Your task to perform on an android device: Set the phone to "Do not disturb". Image 0: 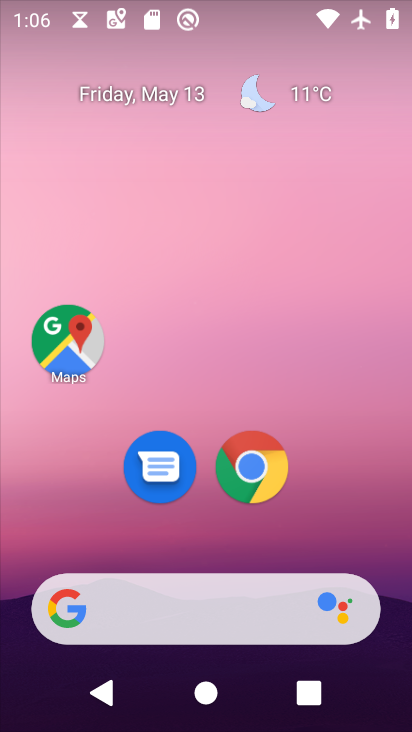
Step 0: drag from (319, 457) to (184, 89)
Your task to perform on an android device: Set the phone to "Do not disturb". Image 1: 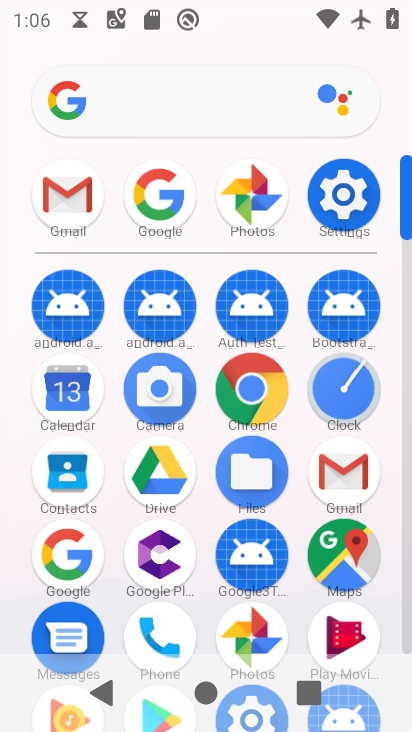
Step 1: click (324, 190)
Your task to perform on an android device: Set the phone to "Do not disturb". Image 2: 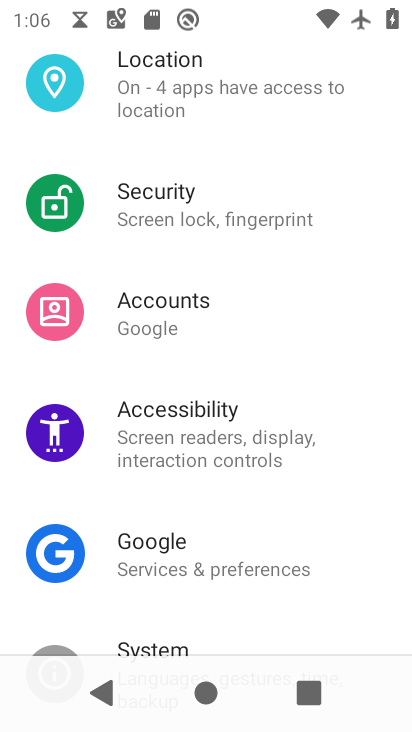
Step 2: drag from (276, 590) to (191, 119)
Your task to perform on an android device: Set the phone to "Do not disturb". Image 3: 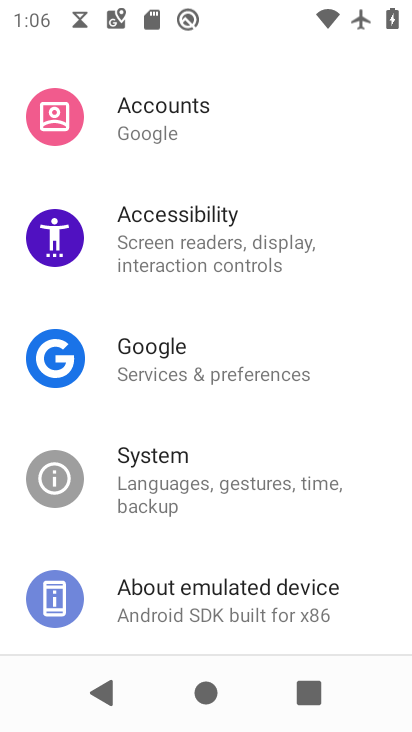
Step 3: drag from (255, 441) to (222, 133)
Your task to perform on an android device: Set the phone to "Do not disturb". Image 4: 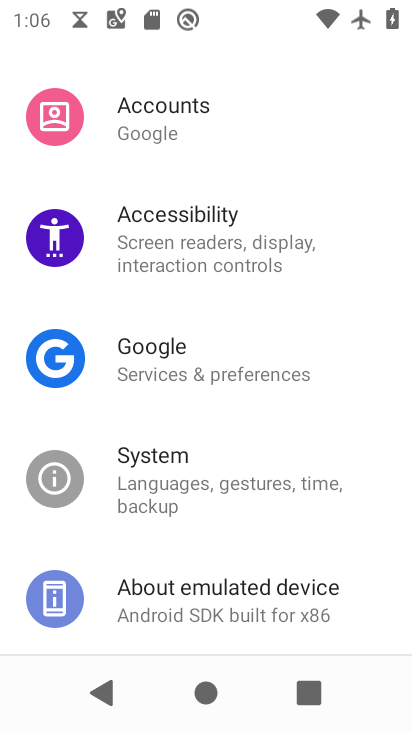
Step 4: drag from (229, 334) to (211, 635)
Your task to perform on an android device: Set the phone to "Do not disturb". Image 5: 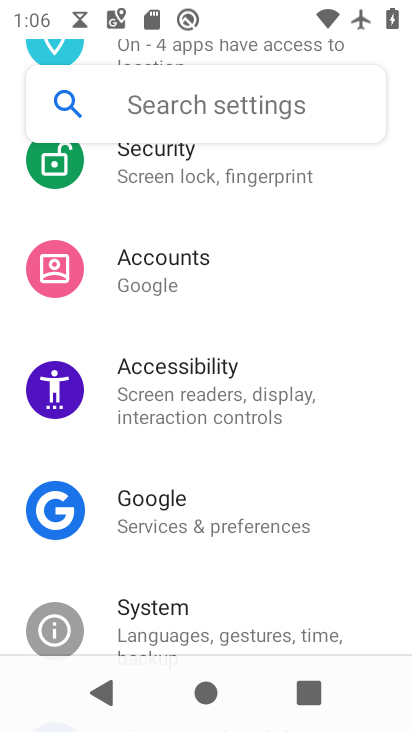
Step 5: drag from (223, 217) to (237, 571)
Your task to perform on an android device: Set the phone to "Do not disturb". Image 6: 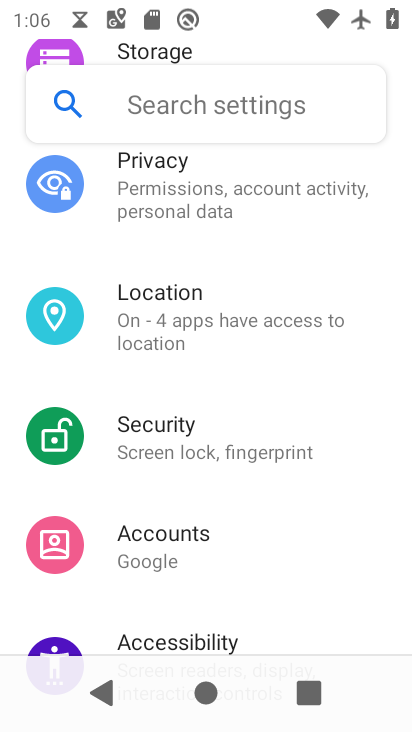
Step 6: drag from (243, 283) to (233, 675)
Your task to perform on an android device: Set the phone to "Do not disturb". Image 7: 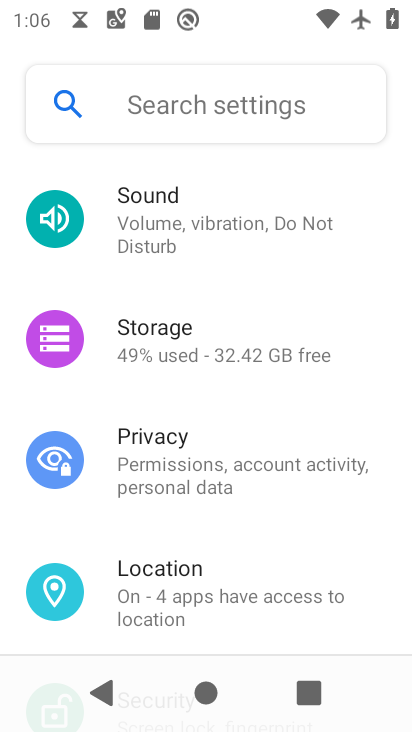
Step 7: click (217, 216)
Your task to perform on an android device: Set the phone to "Do not disturb". Image 8: 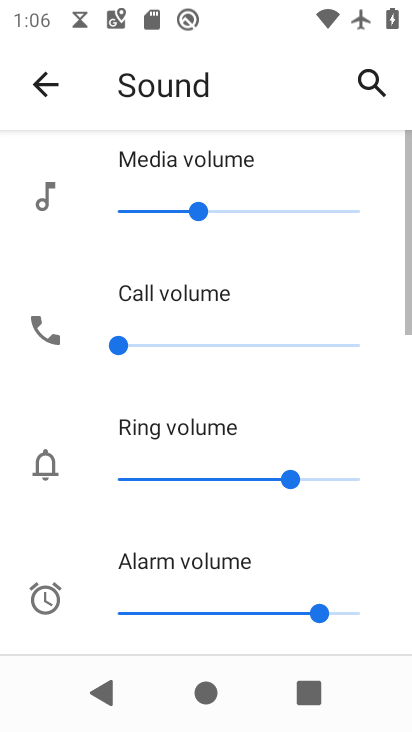
Step 8: drag from (230, 579) to (225, 158)
Your task to perform on an android device: Set the phone to "Do not disturb". Image 9: 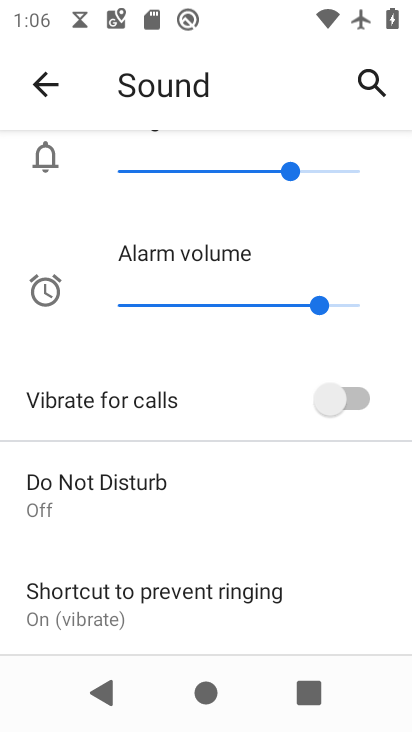
Step 9: click (177, 491)
Your task to perform on an android device: Set the phone to "Do not disturb". Image 10: 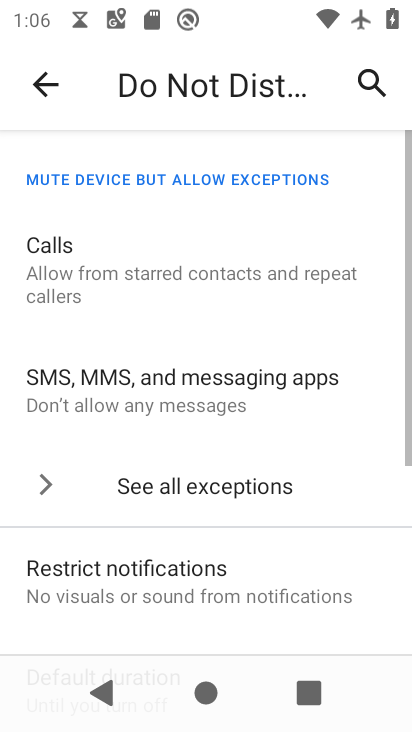
Step 10: drag from (254, 544) to (249, 131)
Your task to perform on an android device: Set the phone to "Do not disturb". Image 11: 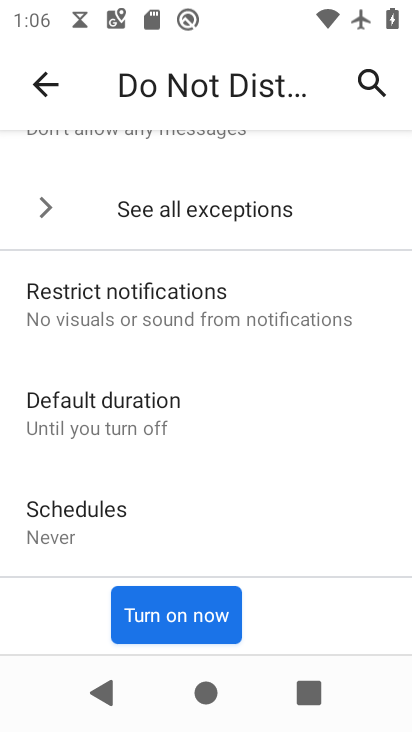
Step 11: click (199, 623)
Your task to perform on an android device: Set the phone to "Do not disturb". Image 12: 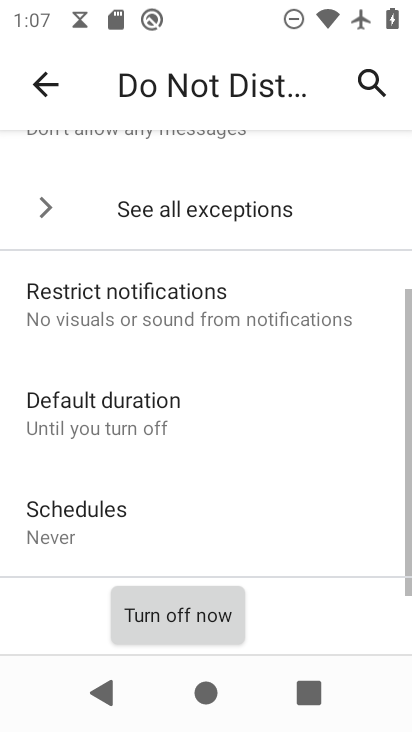
Step 12: task complete